Your task to perform on an android device: set an alarm Image 0: 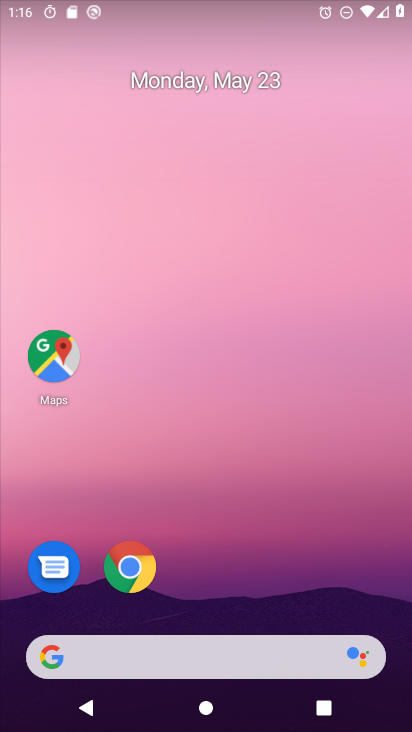
Step 0: drag from (230, 618) to (268, 169)
Your task to perform on an android device: set an alarm Image 1: 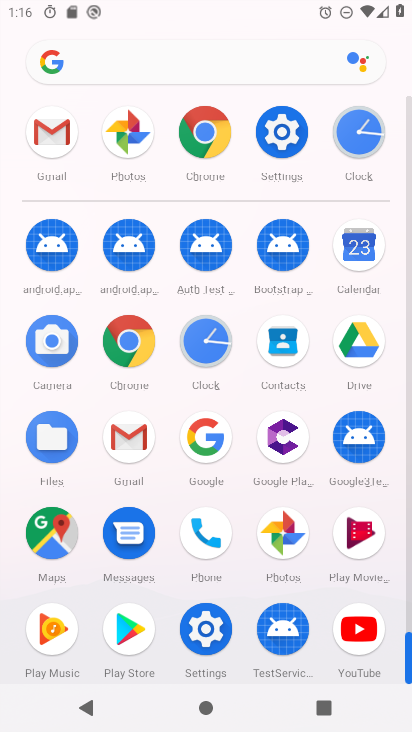
Step 1: click (351, 163)
Your task to perform on an android device: set an alarm Image 2: 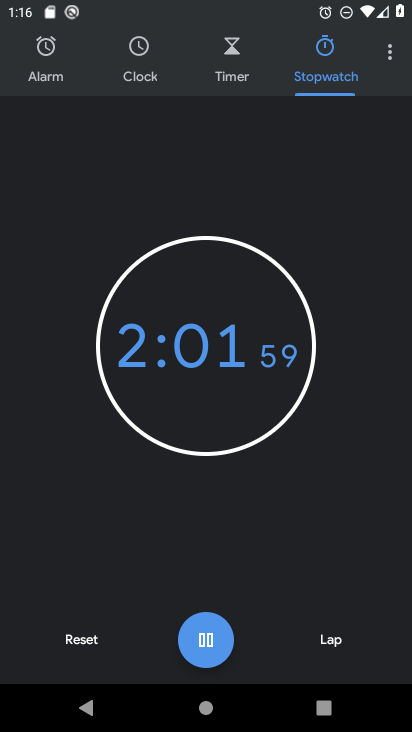
Step 2: click (46, 70)
Your task to perform on an android device: set an alarm Image 3: 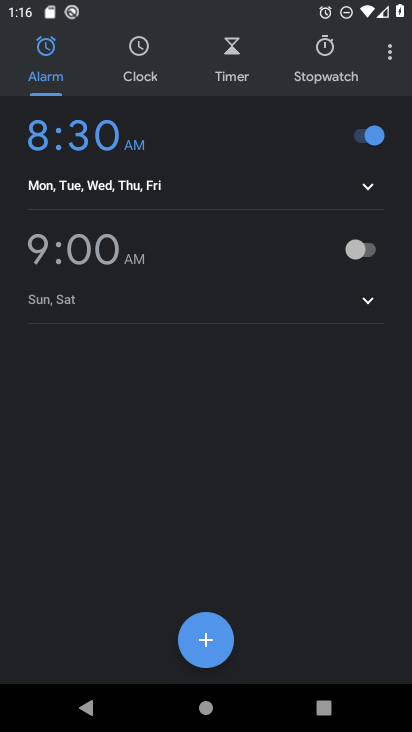
Step 3: click (371, 258)
Your task to perform on an android device: set an alarm Image 4: 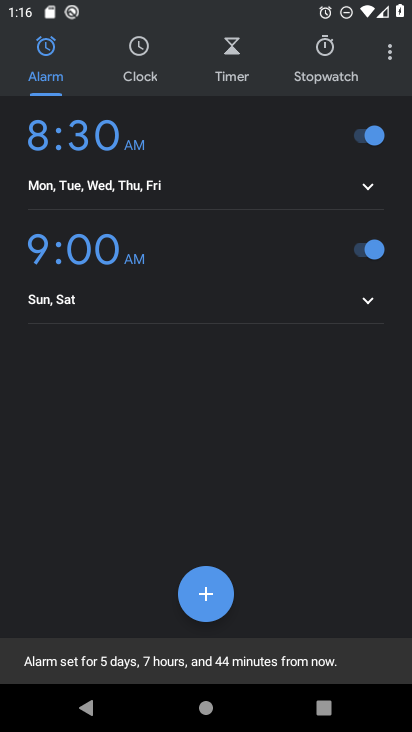
Step 4: task complete